Your task to perform on an android device: Go to Yahoo.com Image 0: 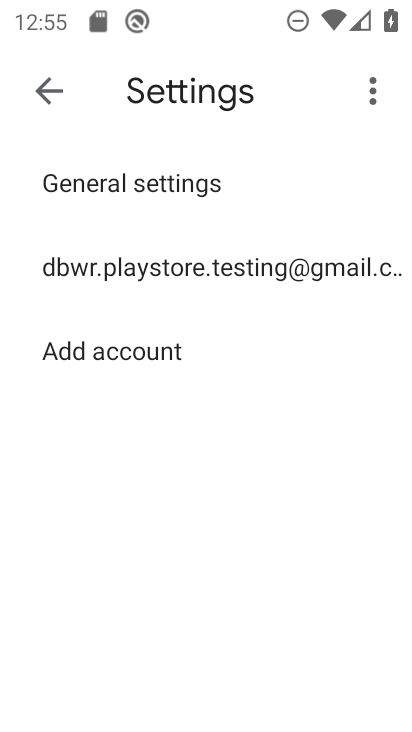
Step 0: press home button
Your task to perform on an android device: Go to Yahoo.com Image 1: 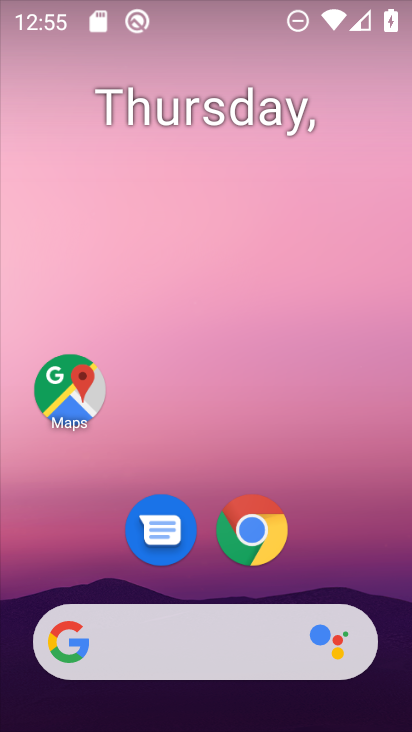
Step 1: click (244, 506)
Your task to perform on an android device: Go to Yahoo.com Image 2: 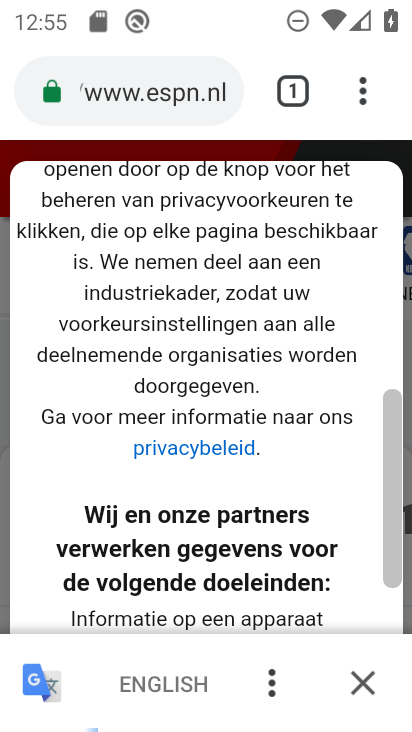
Step 2: click (125, 86)
Your task to perform on an android device: Go to Yahoo.com Image 3: 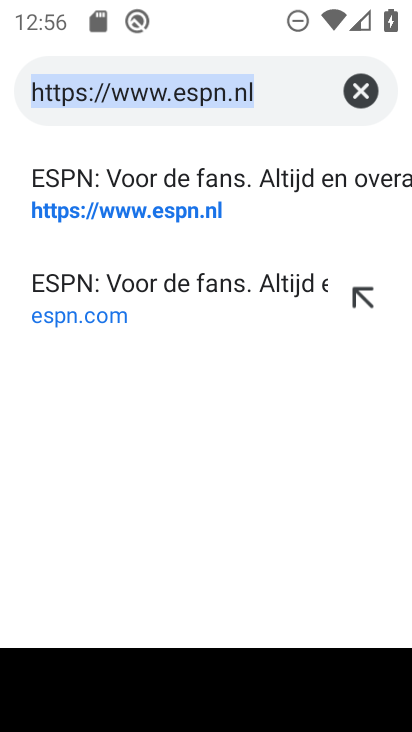
Step 3: type "yahoo.com"
Your task to perform on an android device: Go to Yahoo.com Image 4: 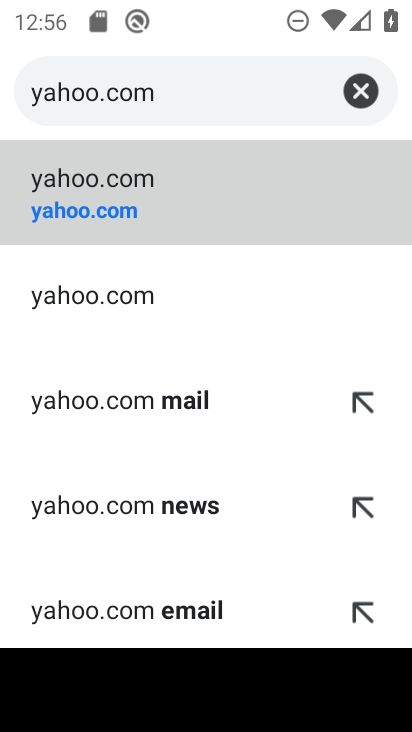
Step 4: click (209, 227)
Your task to perform on an android device: Go to Yahoo.com Image 5: 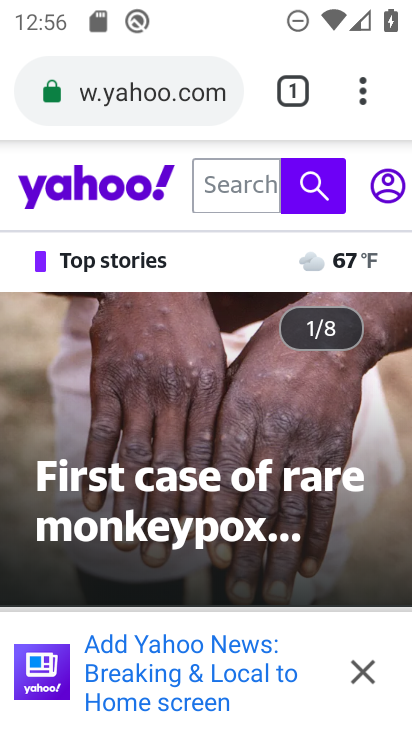
Step 5: task complete